Your task to perform on an android device: toggle airplane mode Image 0: 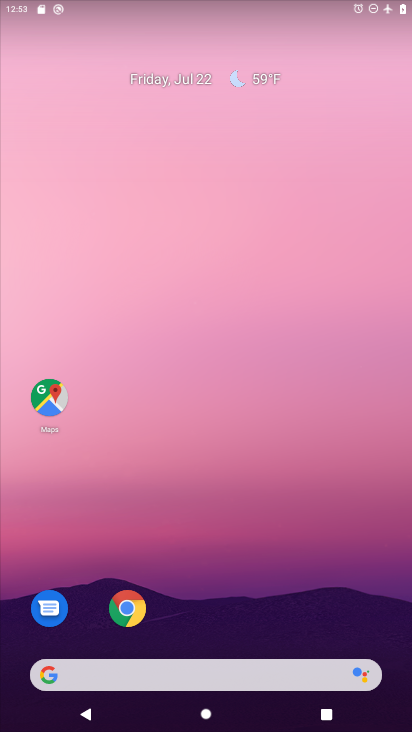
Step 0: drag from (319, 611) to (129, 68)
Your task to perform on an android device: toggle airplane mode Image 1: 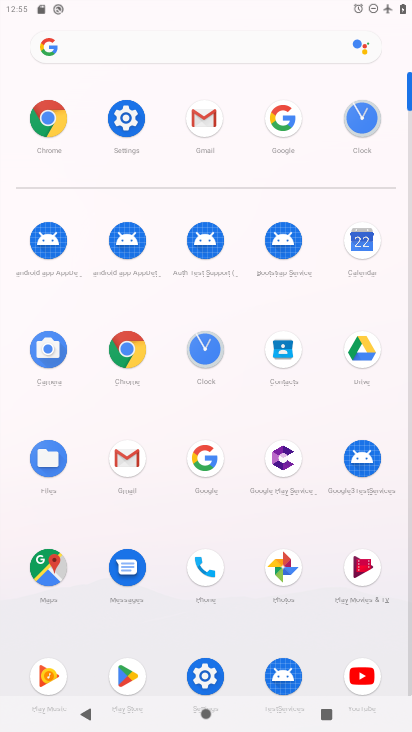
Step 1: drag from (265, 11) to (250, 538)
Your task to perform on an android device: toggle airplane mode Image 2: 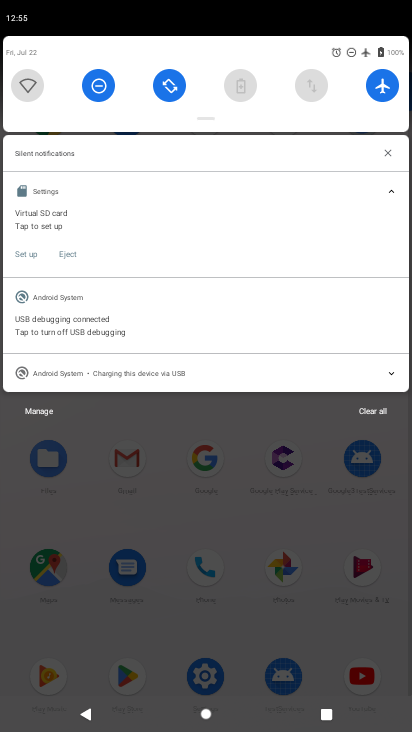
Step 2: click (377, 89)
Your task to perform on an android device: toggle airplane mode Image 3: 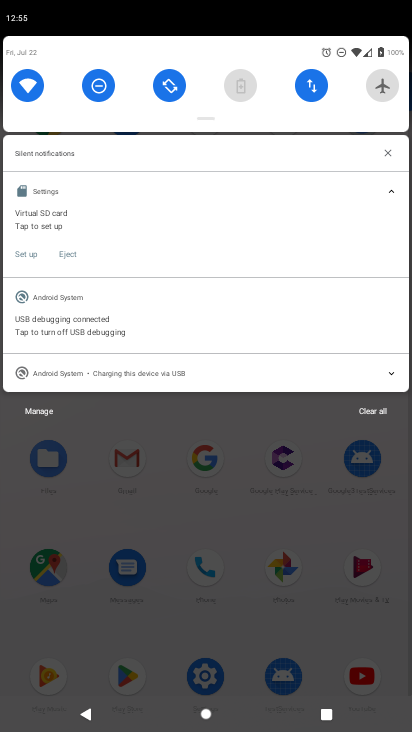
Step 3: task complete